Your task to perform on an android device: Do I have any events this weekend? Image 0: 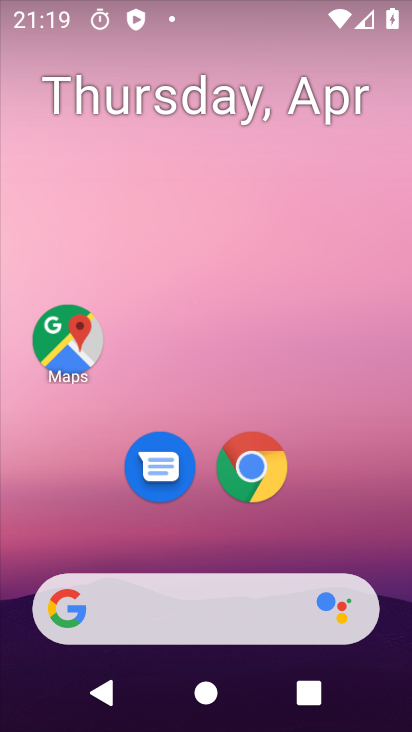
Step 0: drag from (227, 557) to (303, 11)
Your task to perform on an android device: Do I have any events this weekend? Image 1: 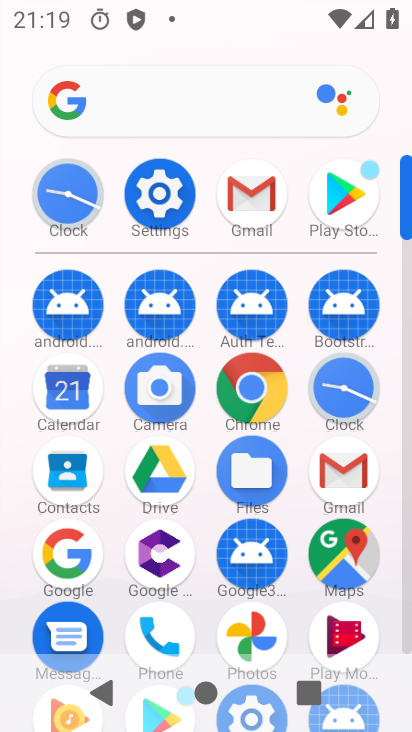
Step 1: click (69, 414)
Your task to perform on an android device: Do I have any events this weekend? Image 2: 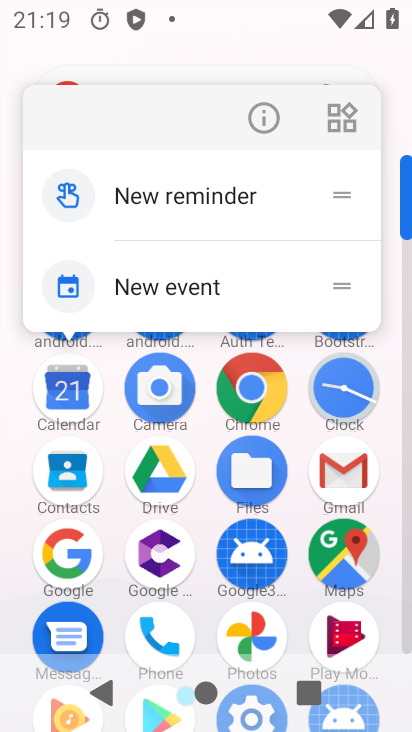
Step 2: click (82, 399)
Your task to perform on an android device: Do I have any events this weekend? Image 3: 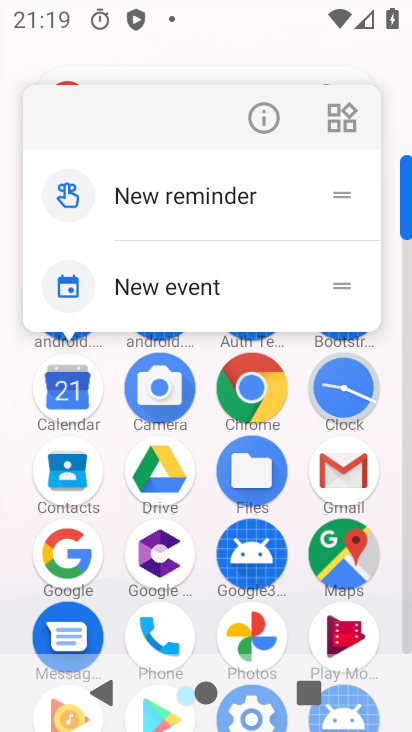
Step 3: click (72, 388)
Your task to perform on an android device: Do I have any events this weekend? Image 4: 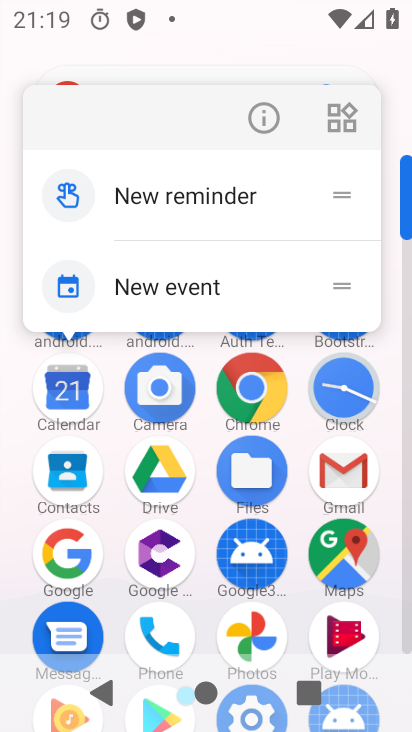
Step 4: click (72, 388)
Your task to perform on an android device: Do I have any events this weekend? Image 5: 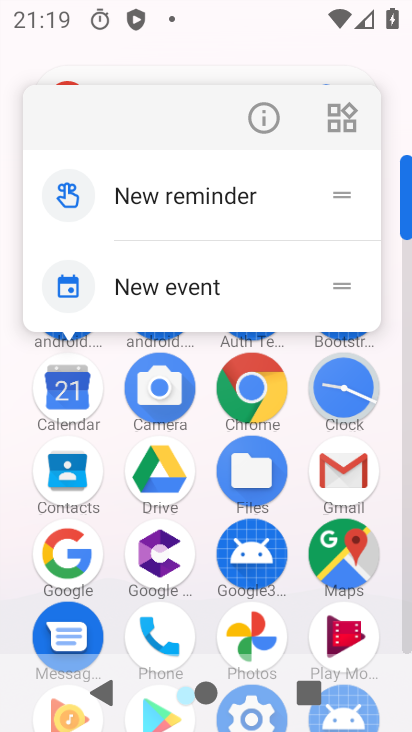
Step 5: click (66, 388)
Your task to perform on an android device: Do I have any events this weekend? Image 6: 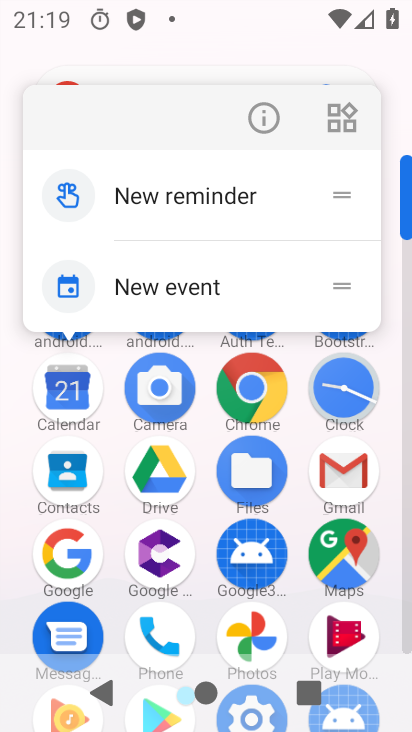
Step 6: click (80, 407)
Your task to perform on an android device: Do I have any events this weekend? Image 7: 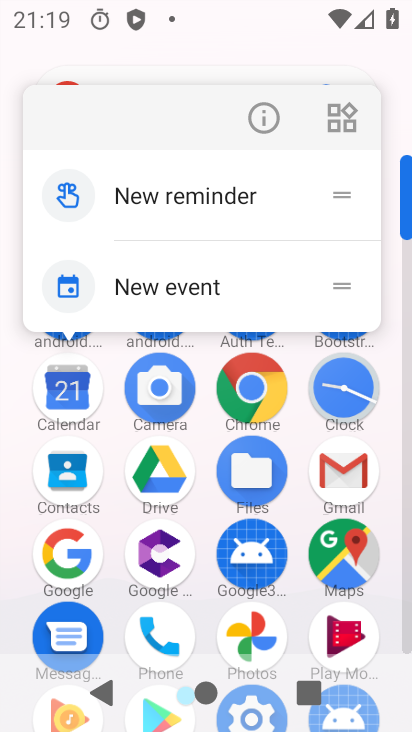
Step 7: click (56, 381)
Your task to perform on an android device: Do I have any events this weekend? Image 8: 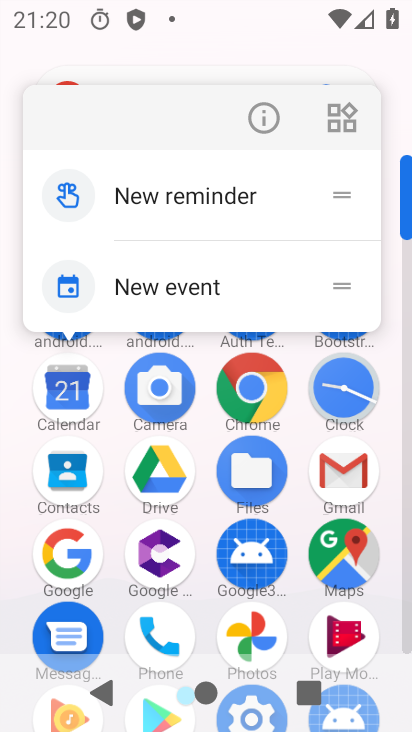
Step 8: click (66, 380)
Your task to perform on an android device: Do I have any events this weekend? Image 9: 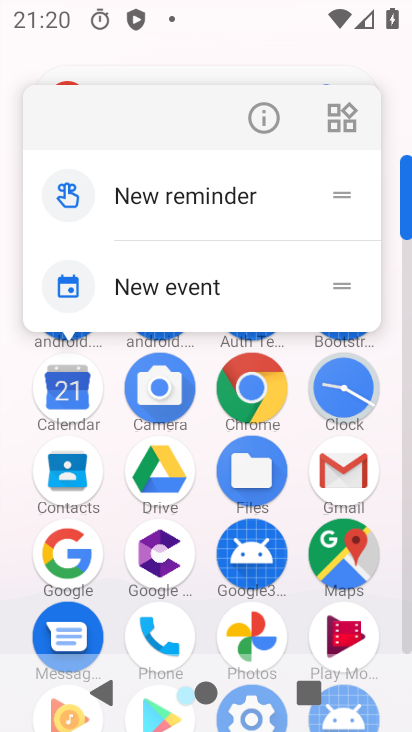
Step 9: click (68, 380)
Your task to perform on an android device: Do I have any events this weekend? Image 10: 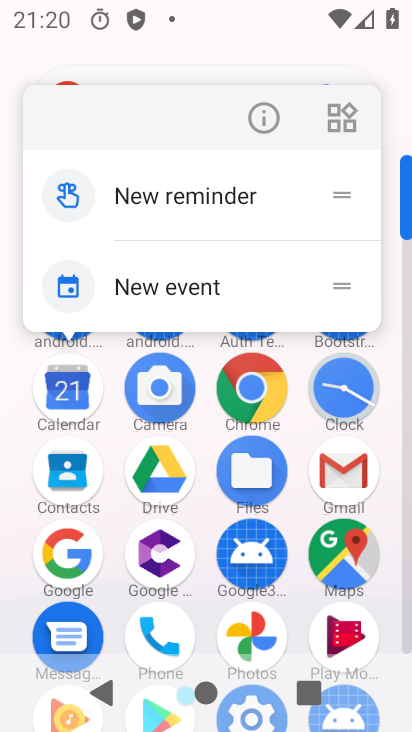
Step 10: click (68, 380)
Your task to perform on an android device: Do I have any events this weekend? Image 11: 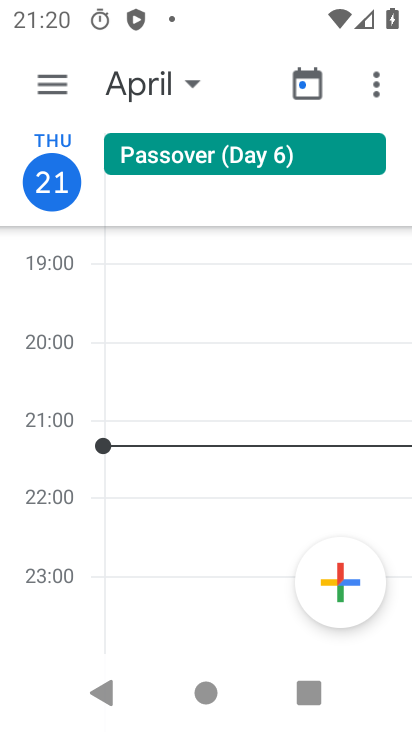
Step 11: click (51, 85)
Your task to perform on an android device: Do I have any events this weekend? Image 12: 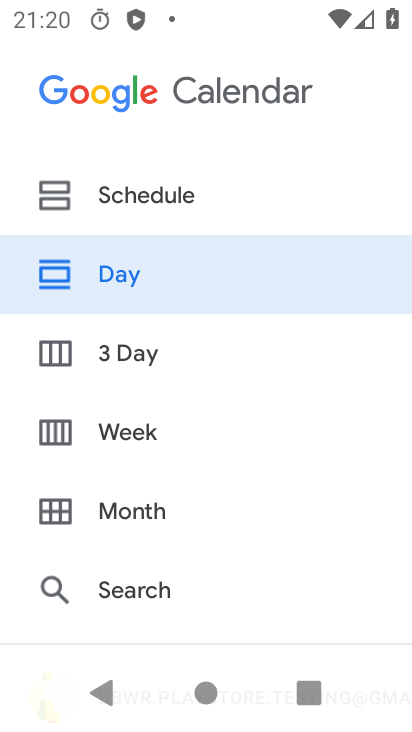
Step 12: click (136, 439)
Your task to perform on an android device: Do I have any events this weekend? Image 13: 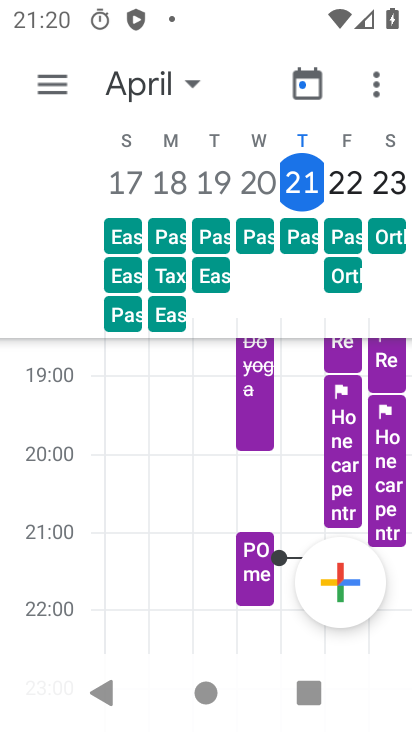
Step 13: task complete